Your task to perform on an android device: turn on data saver in the chrome app Image 0: 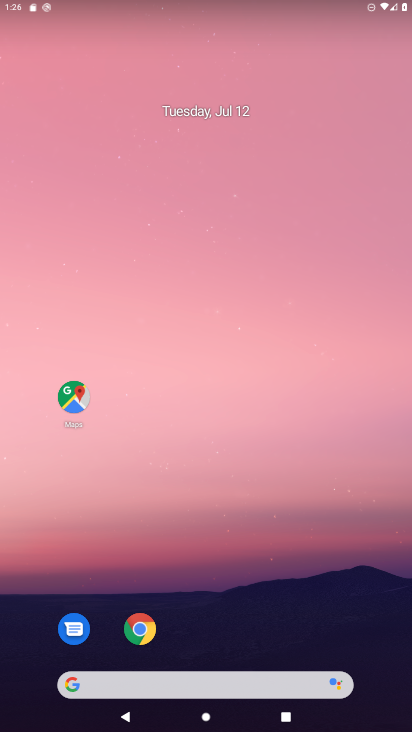
Step 0: press home button
Your task to perform on an android device: turn on data saver in the chrome app Image 1: 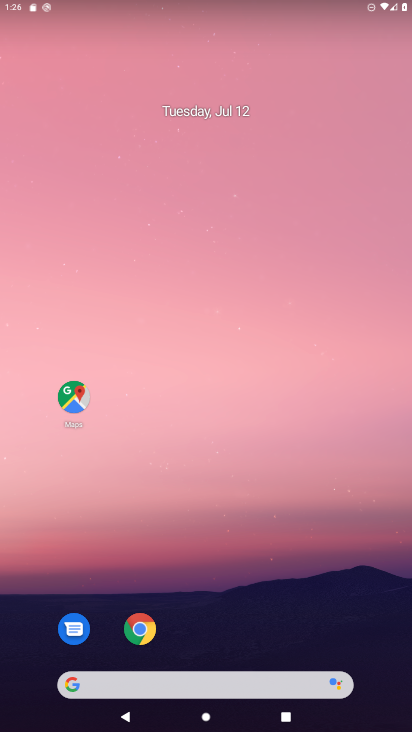
Step 1: click (140, 631)
Your task to perform on an android device: turn on data saver in the chrome app Image 2: 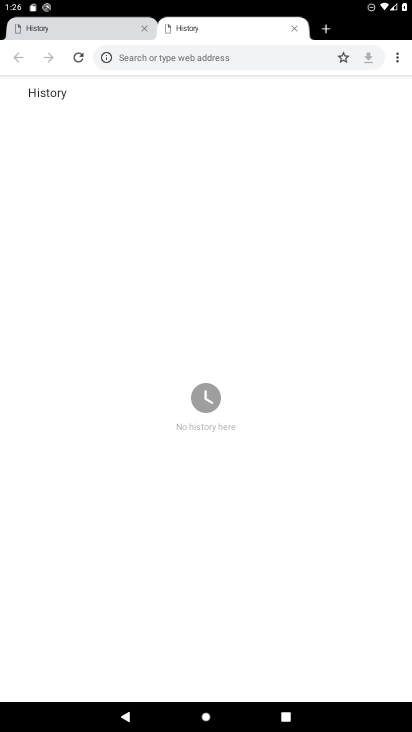
Step 2: click (394, 54)
Your task to perform on an android device: turn on data saver in the chrome app Image 3: 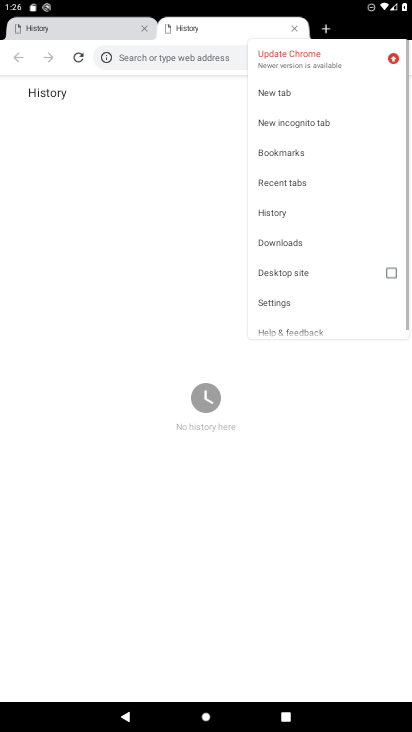
Step 3: click (300, 301)
Your task to perform on an android device: turn on data saver in the chrome app Image 4: 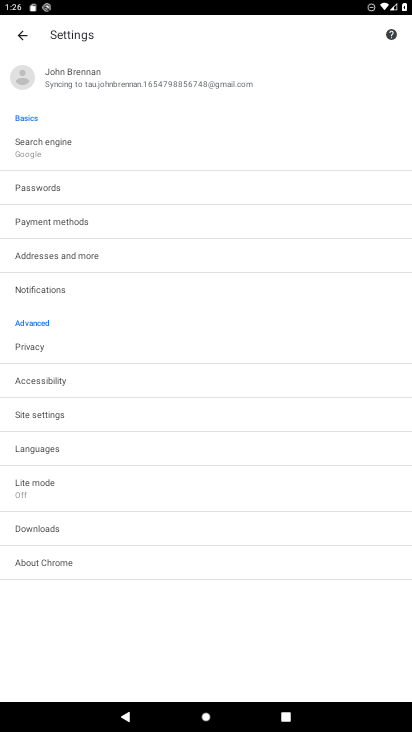
Step 4: click (75, 487)
Your task to perform on an android device: turn on data saver in the chrome app Image 5: 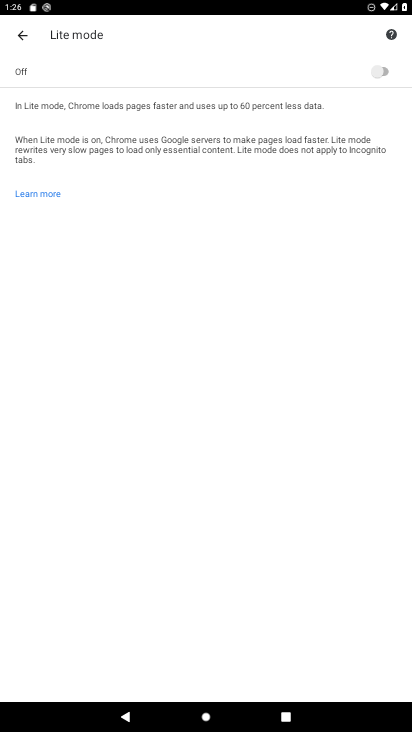
Step 5: click (378, 72)
Your task to perform on an android device: turn on data saver in the chrome app Image 6: 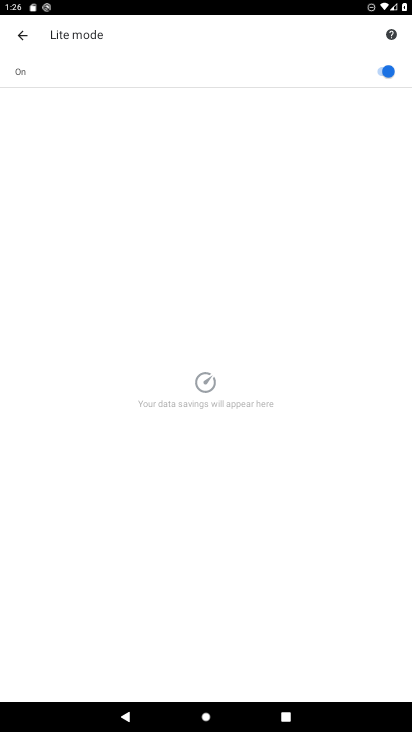
Step 6: task complete